Your task to perform on an android device: install app "Lyft - Rideshare, Bikes, Scooters & Transit" Image 0: 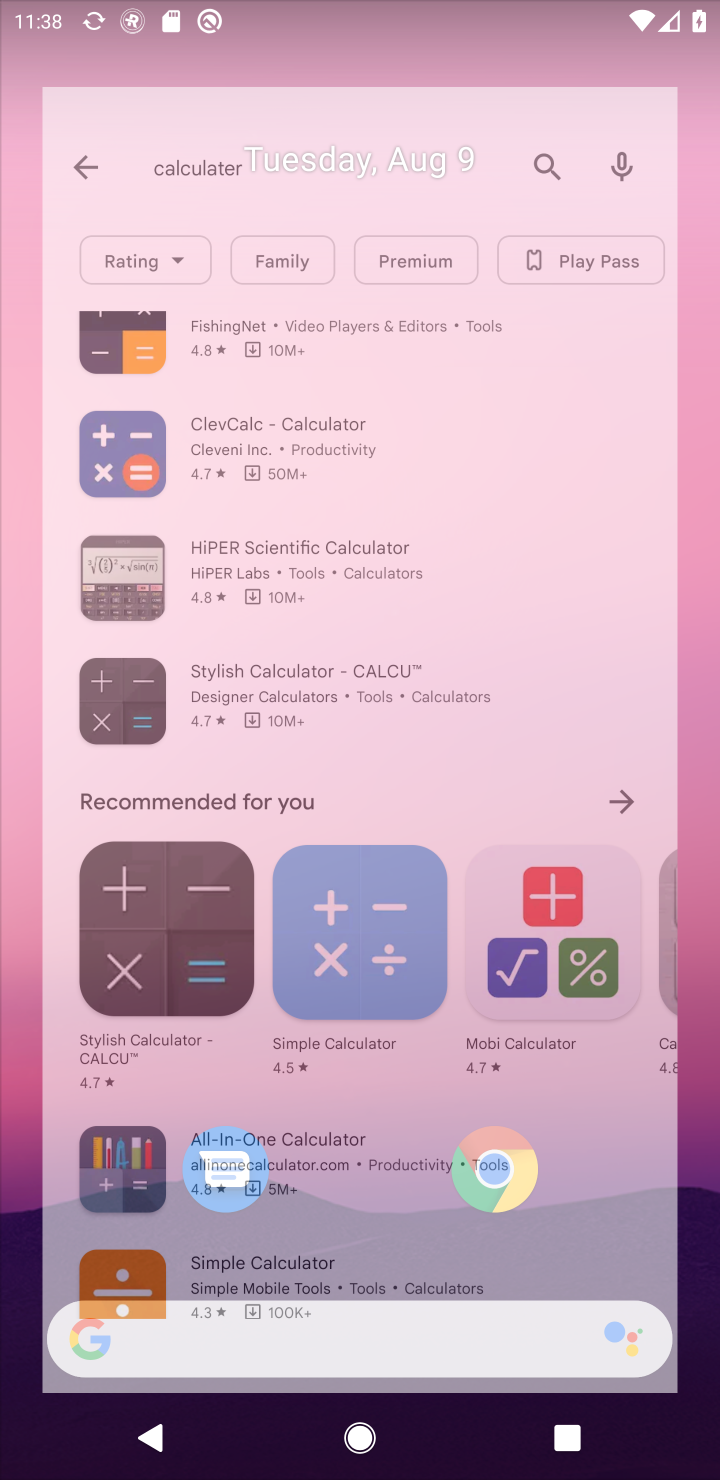
Step 0: press home button
Your task to perform on an android device: install app "Lyft - Rideshare, Bikes, Scooters & Transit" Image 1: 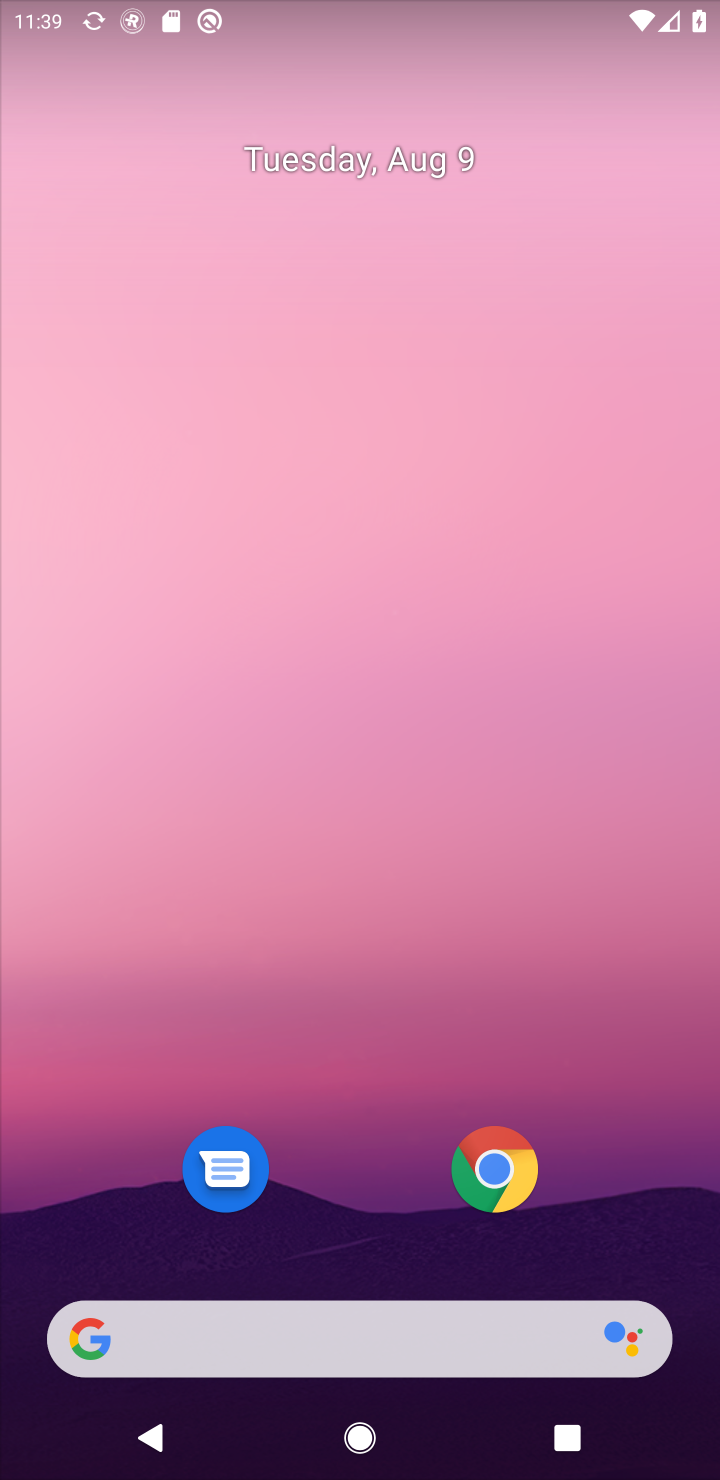
Step 1: drag from (632, 1225) to (630, 87)
Your task to perform on an android device: install app "Lyft - Rideshare, Bikes, Scooters & Transit" Image 2: 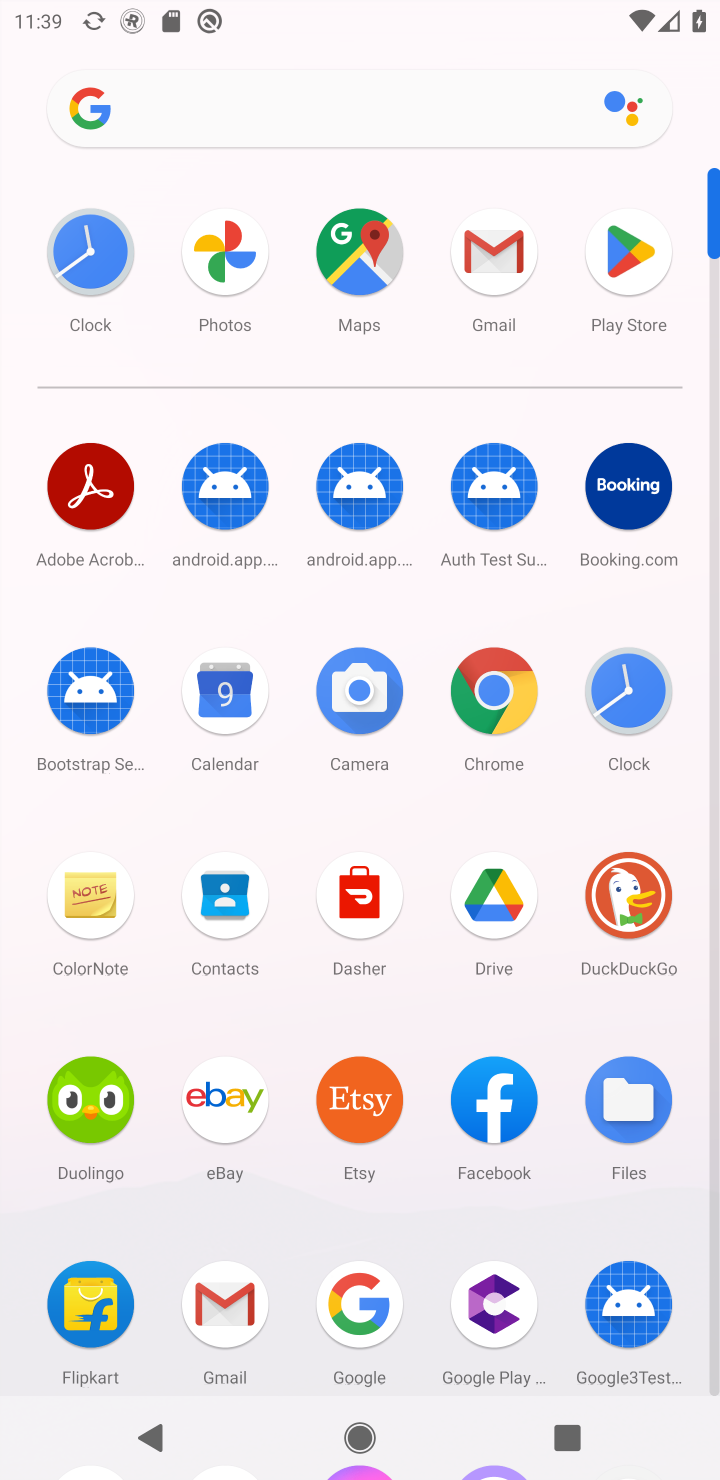
Step 2: click (615, 252)
Your task to perform on an android device: install app "Lyft - Rideshare, Bikes, Scooters & Transit" Image 3: 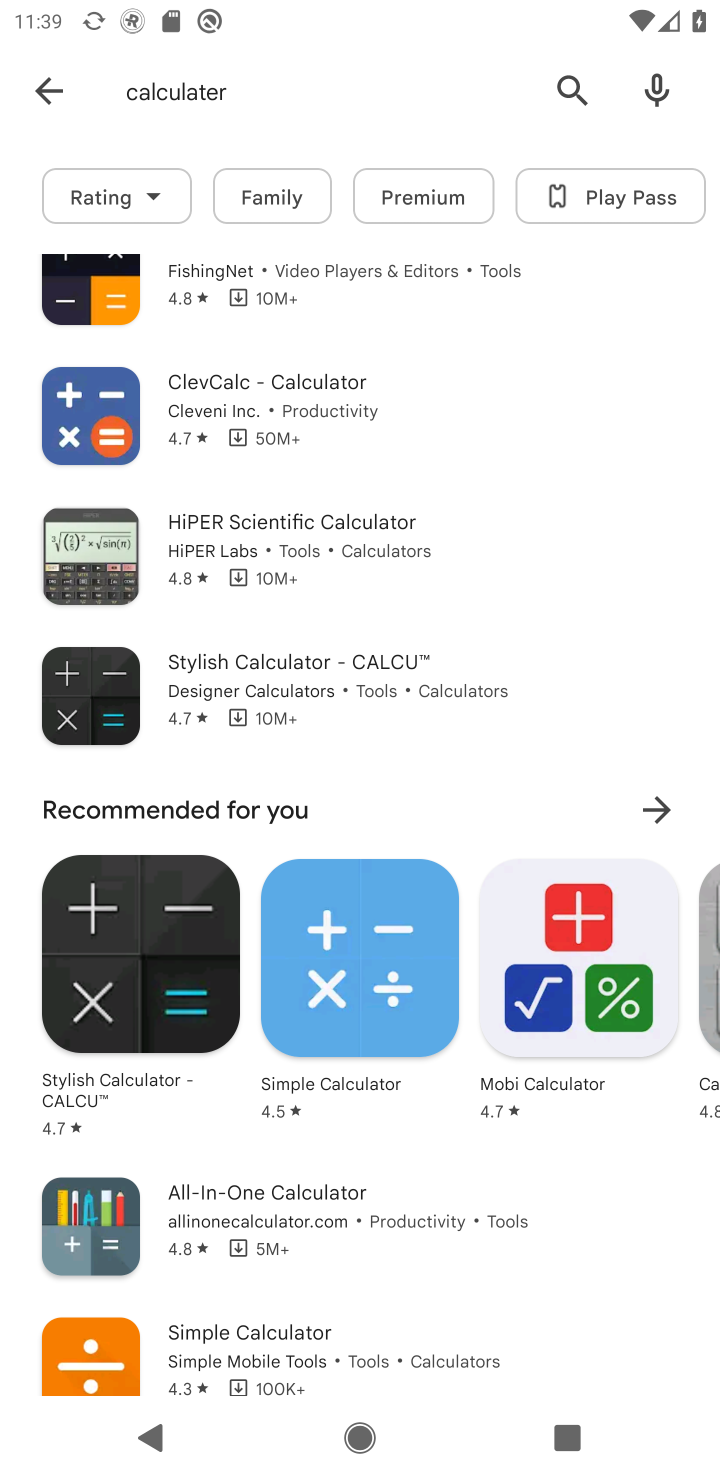
Step 3: click (566, 83)
Your task to perform on an android device: install app "Lyft - Rideshare, Bikes, Scooters & Transit" Image 4: 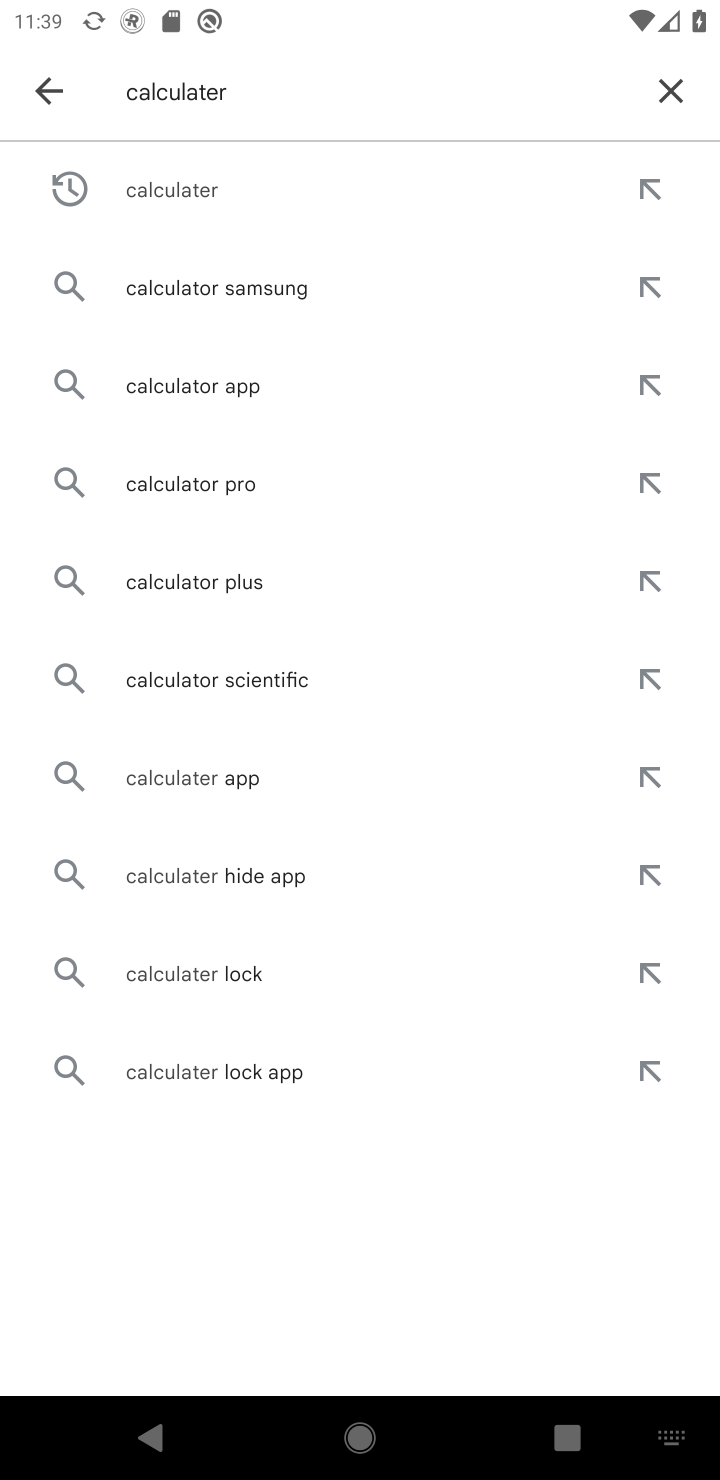
Step 4: click (666, 80)
Your task to perform on an android device: install app "Lyft - Rideshare, Bikes, Scooters & Transit" Image 5: 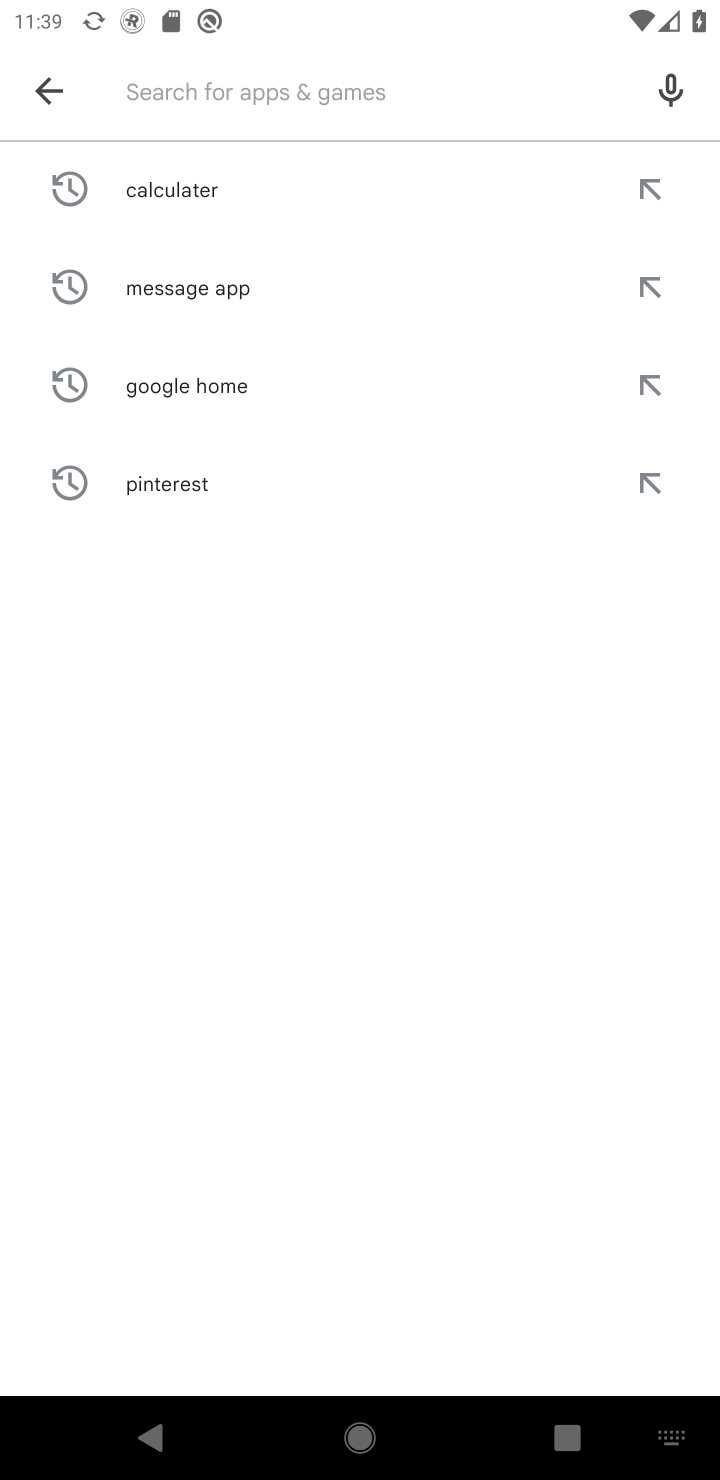
Step 5: type "Lyft - Rideshare, Bikes, Scooters & Transit"
Your task to perform on an android device: install app "Lyft - Rideshare, Bikes, Scooters & Transit" Image 6: 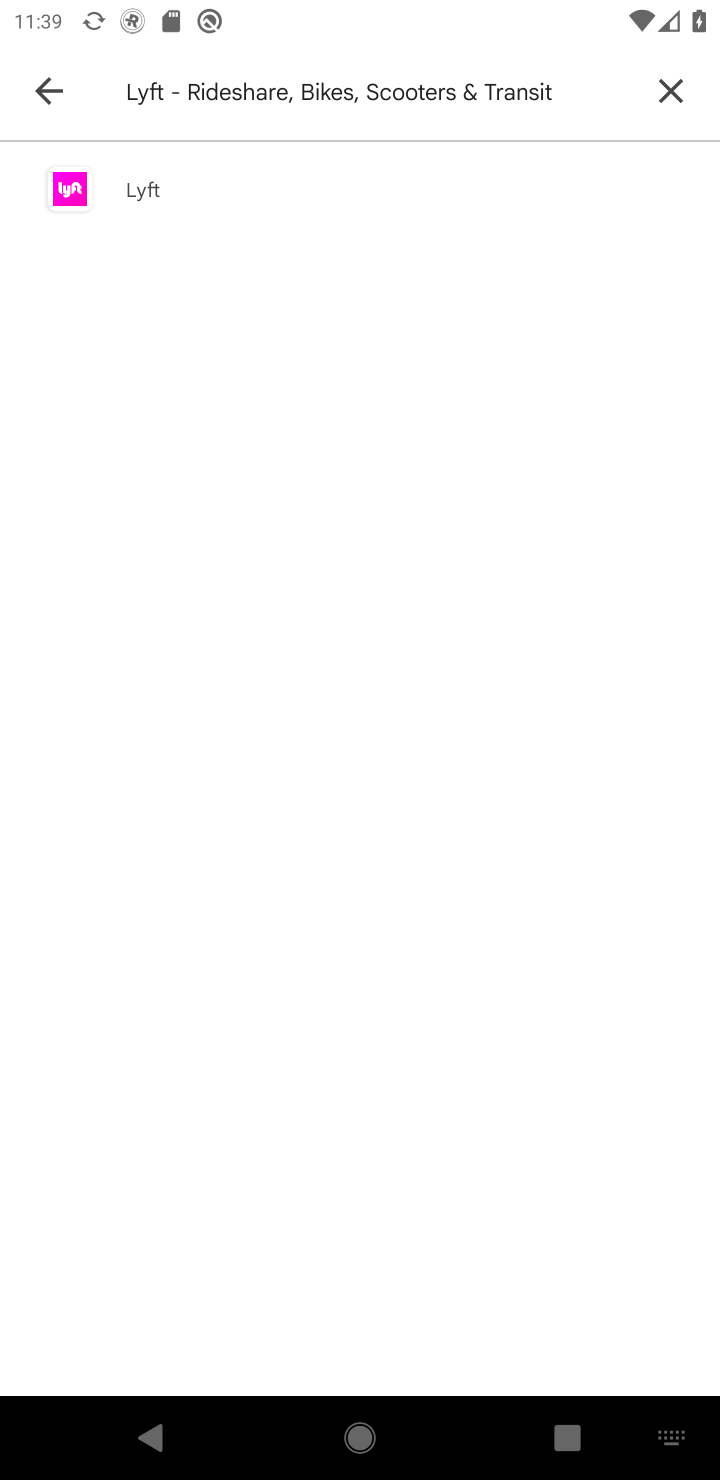
Step 6: click (189, 192)
Your task to perform on an android device: install app "Lyft - Rideshare, Bikes, Scooters & Transit" Image 7: 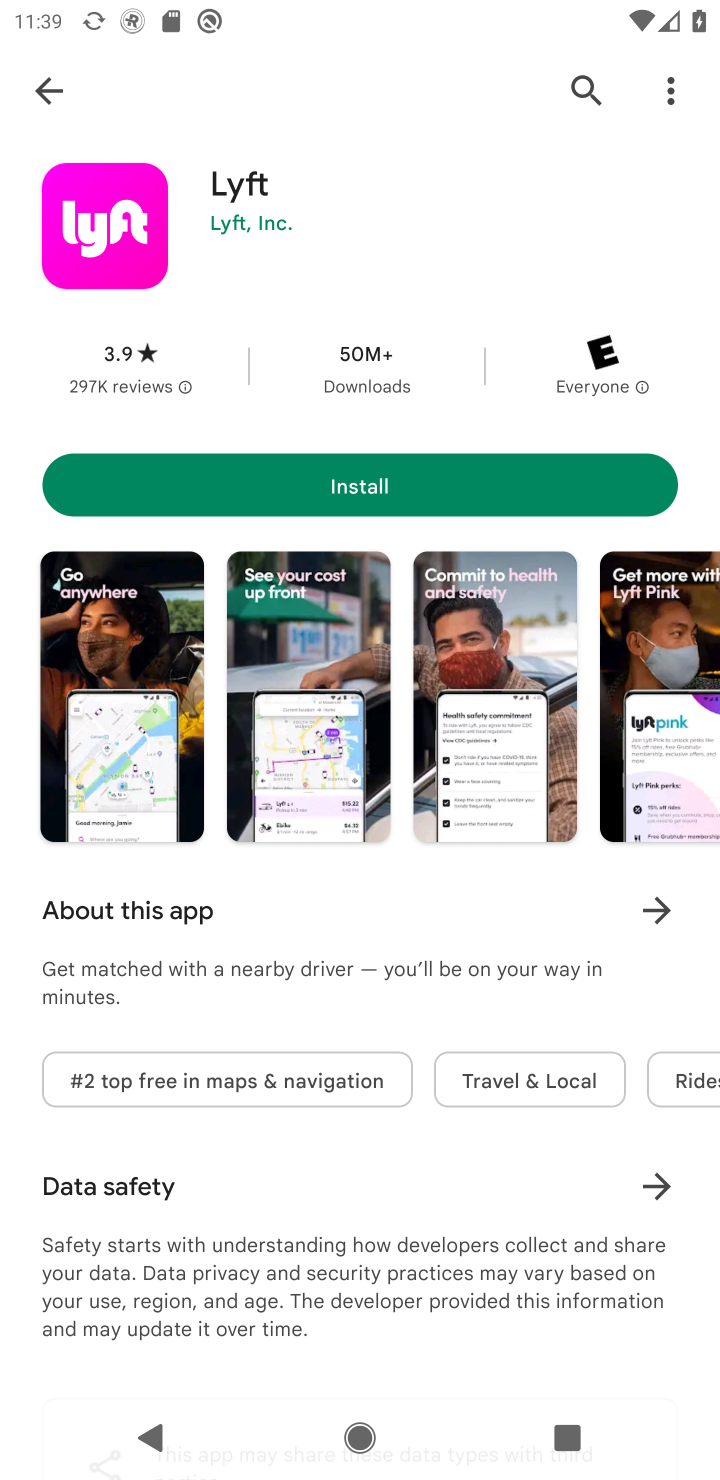
Step 7: click (519, 484)
Your task to perform on an android device: install app "Lyft - Rideshare, Bikes, Scooters & Transit" Image 8: 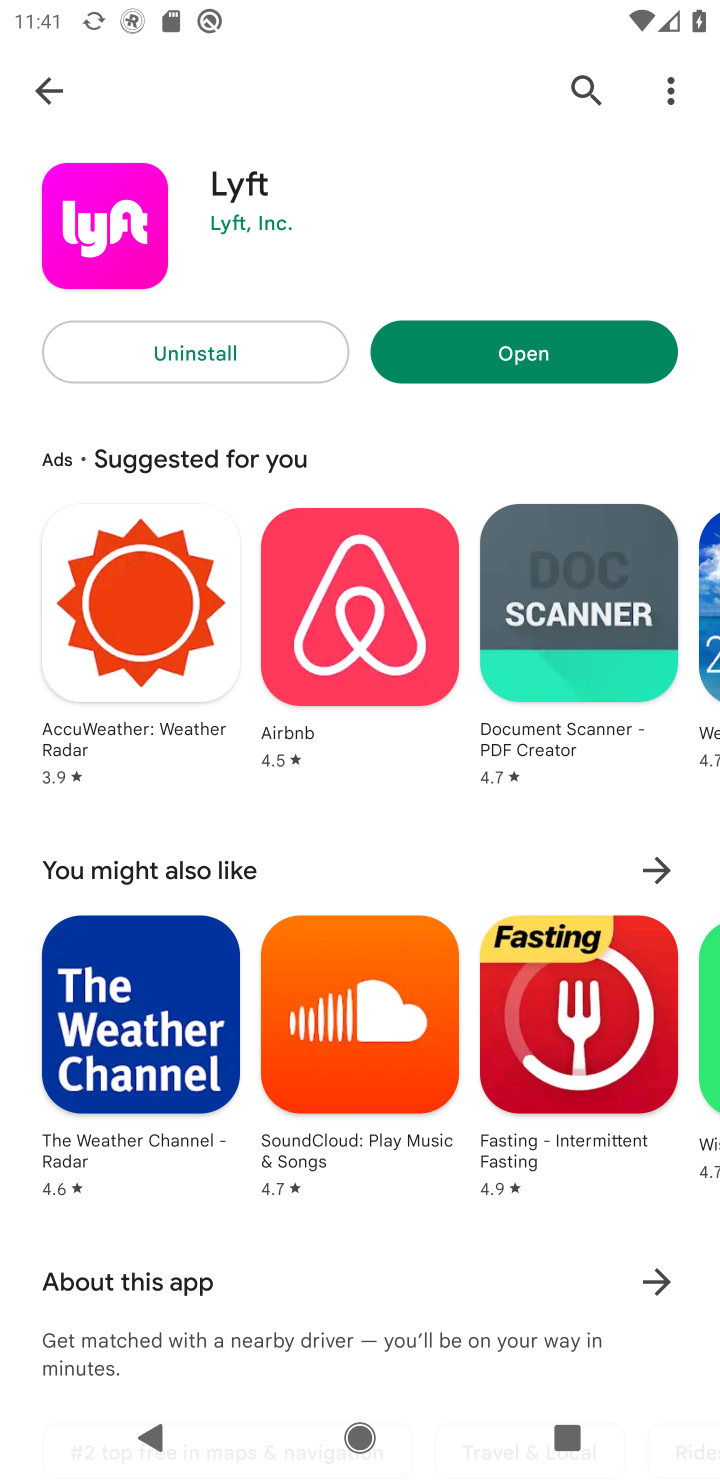
Step 8: task complete